Your task to perform on an android device: check out phone information Image 0: 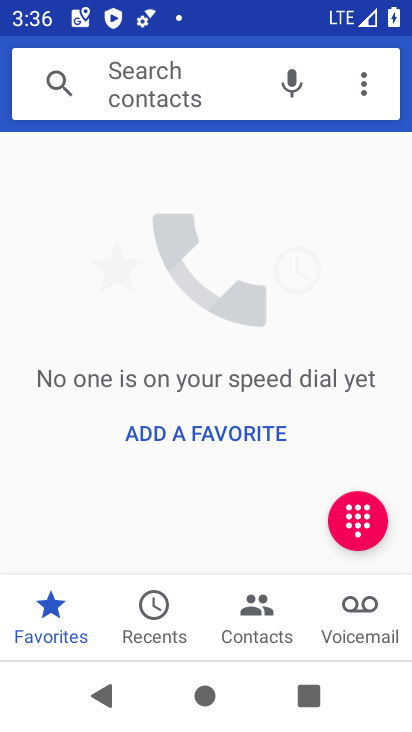
Step 0: press home button
Your task to perform on an android device: check out phone information Image 1: 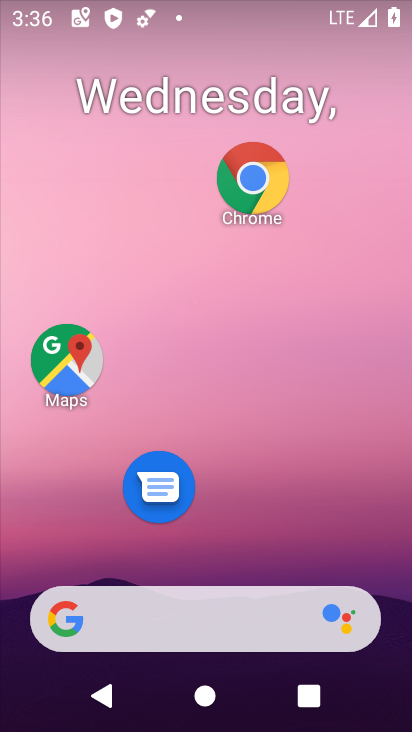
Step 1: drag from (232, 565) to (245, 64)
Your task to perform on an android device: check out phone information Image 2: 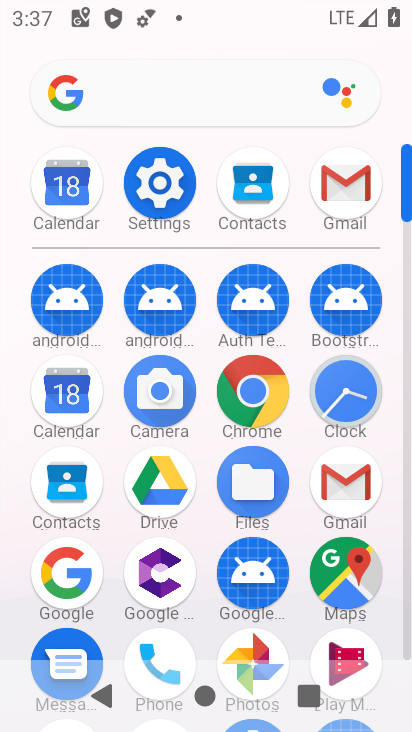
Step 2: click (147, 179)
Your task to perform on an android device: check out phone information Image 3: 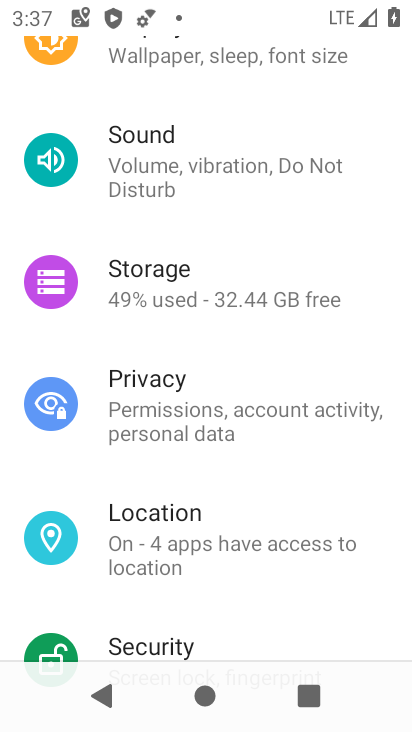
Step 3: drag from (247, 549) to (266, 197)
Your task to perform on an android device: check out phone information Image 4: 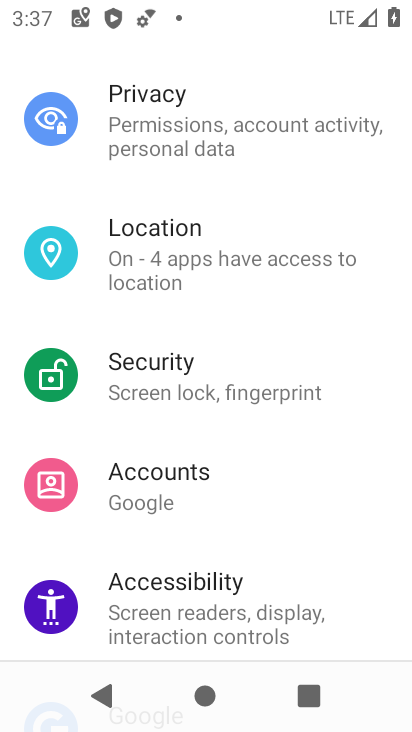
Step 4: drag from (274, 557) to (285, 278)
Your task to perform on an android device: check out phone information Image 5: 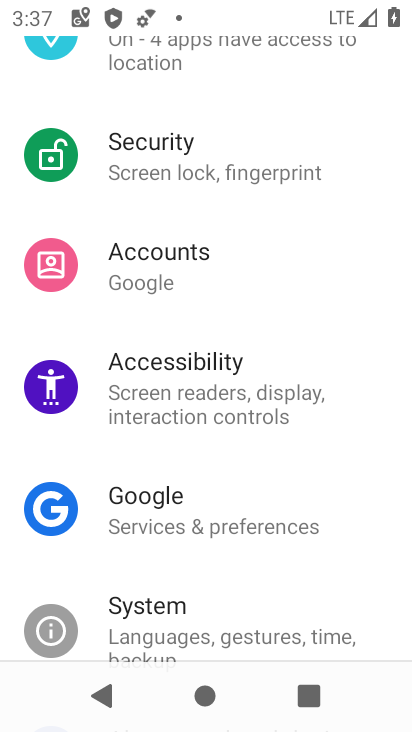
Step 5: drag from (273, 584) to (280, 218)
Your task to perform on an android device: check out phone information Image 6: 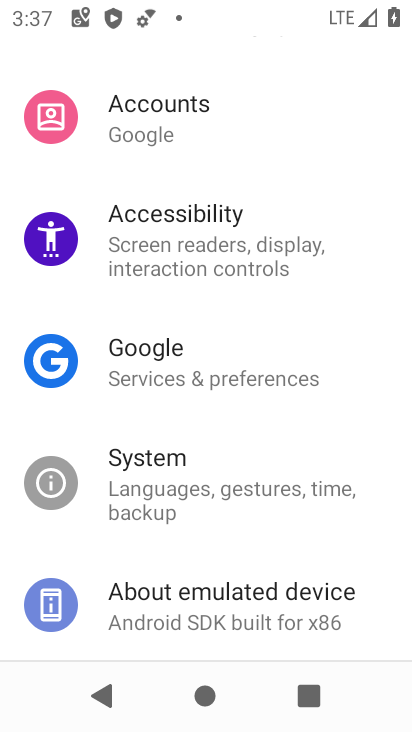
Step 6: click (247, 583)
Your task to perform on an android device: check out phone information Image 7: 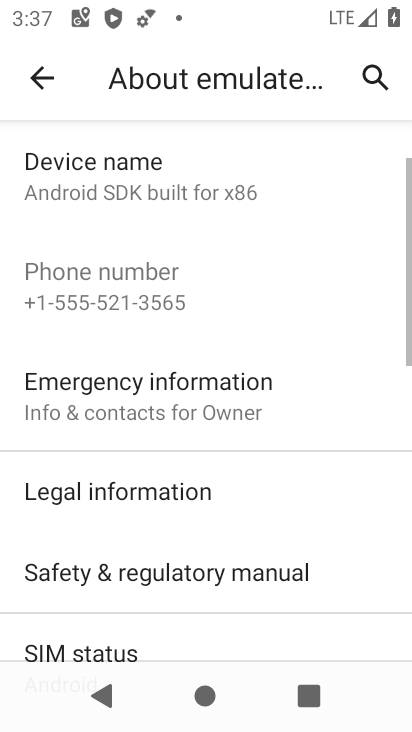
Step 7: task complete